Your task to perform on an android device: What's the news this evening? Image 0: 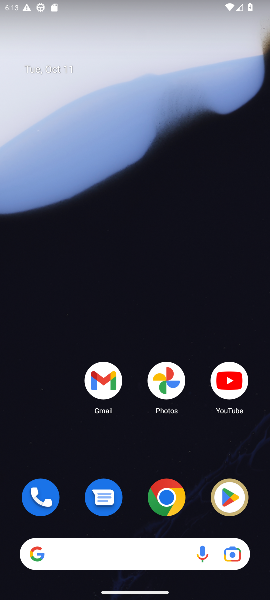
Step 0: drag from (158, 588) to (144, 256)
Your task to perform on an android device: What's the news this evening? Image 1: 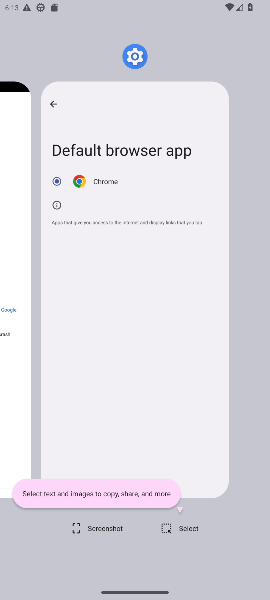
Step 1: click (236, 109)
Your task to perform on an android device: What's the news this evening? Image 2: 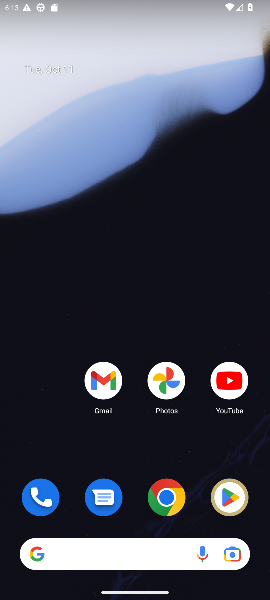
Step 2: click (113, 578)
Your task to perform on an android device: What's the news this evening? Image 3: 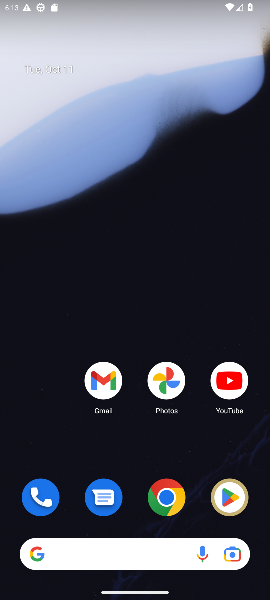
Step 3: click (117, 593)
Your task to perform on an android device: What's the news this evening? Image 4: 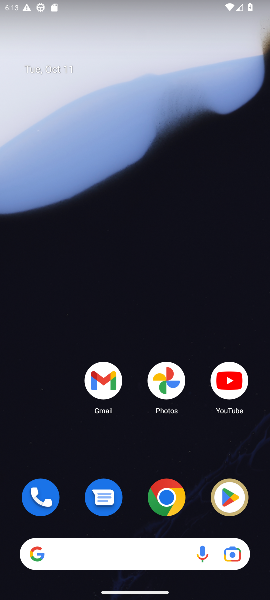
Step 4: drag from (117, 593) to (123, 162)
Your task to perform on an android device: What's the news this evening? Image 5: 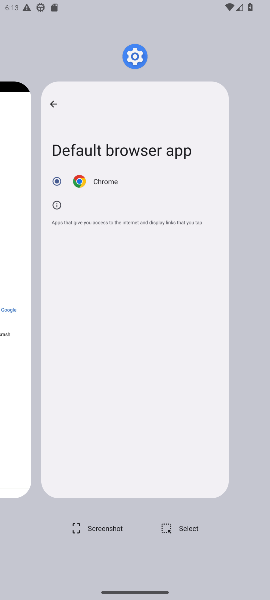
Step 5: click (250, 87)
Your task to perform on an android device: What's the news this evening? Image 6: 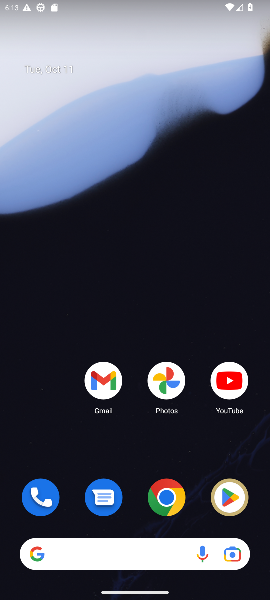
Step 6: click (92, 553)
Your task to perform on an android device: What's the news this evening? Image 7: 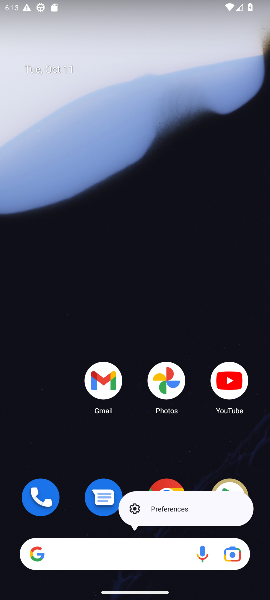
Step 7: click (92, 553)
Your task to perform on an android device: What's the news this evening? Image 8: 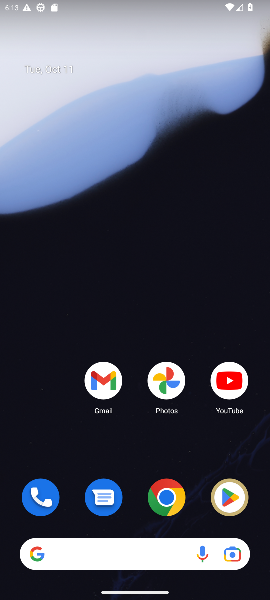
Step 8: click (92, 553)
Your task to perform on an android device: What's the news this evening? Image 9: 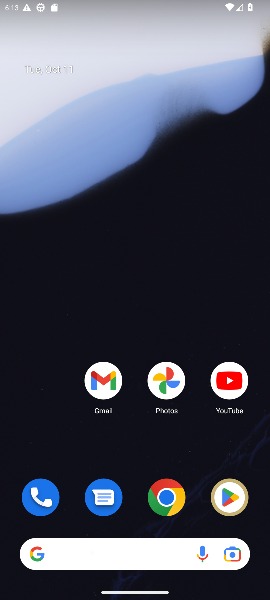
Step 9: click (92, 553)
Your task to perform on an android device: What's the news this evening? Image 10: 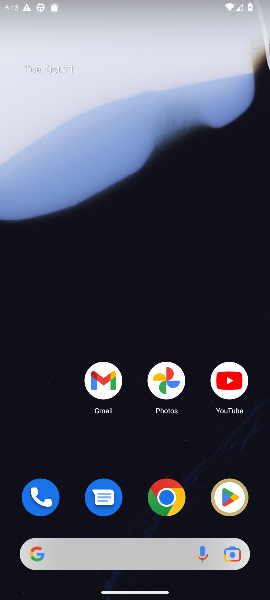
Step 10: click (92, 553)
Your task to perform on an android device: What's the news this evening? Image 11: 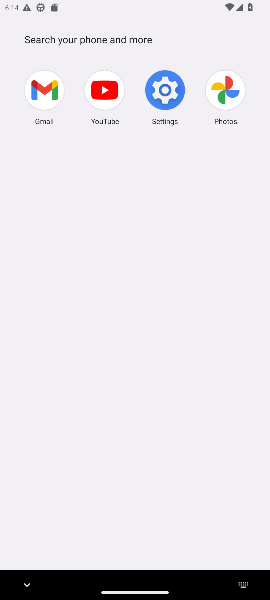
Step 11: type "the news this evening"
Your task to perform on an android device: What's the news this evening? Image 12: 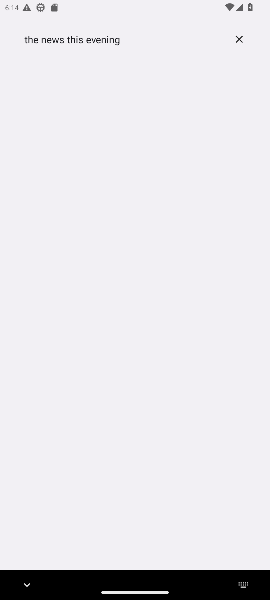
Step 12: press enter
Your task to perform on an android device: What's the news this evening? Image 13: 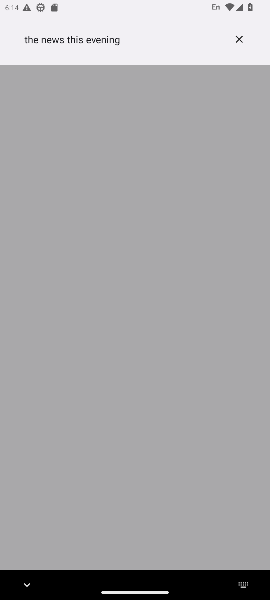
Step 13: click (83, 43)
Your task to perform on an android device: What's the news this evening? Image 14: 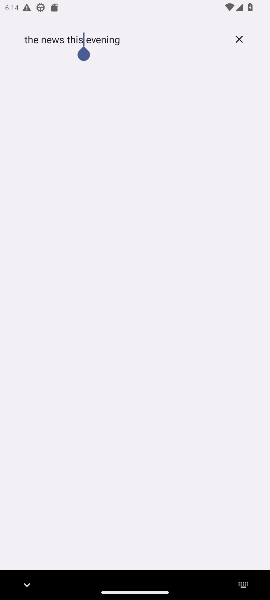
Step 14: click (83, 43)
Your task to perform on an android device: What's the news this evening? Image 15: 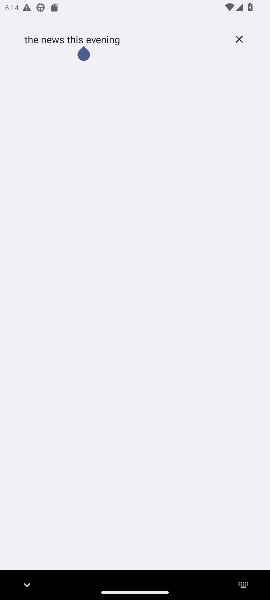
Step 15: click (83, 43)
Your task to perform on an android device: What's the news this evening? Image 16: 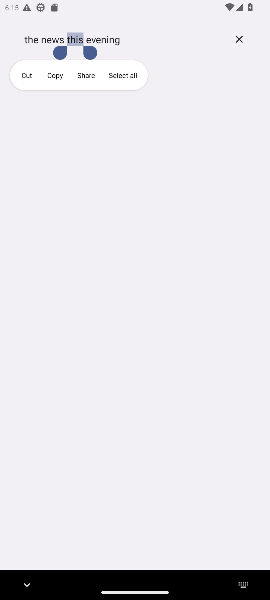
Step 16: click (143, 40)
Your task to perform on an android device: What's the news this evening? Image 17: 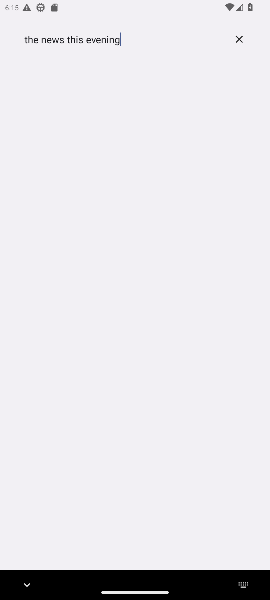
Step 17: click (140, 34)
Your task to perform on an android device: What's the news this evening? Image 18: 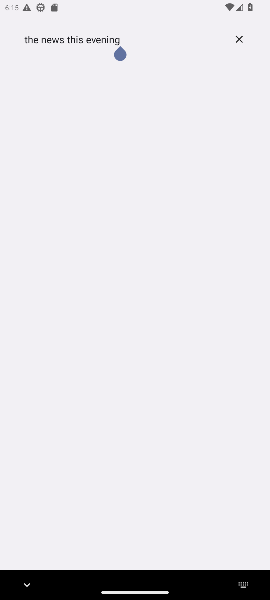
Step 18: press enter
Your task to perform on an android device: What's the news this evening? Image 19: 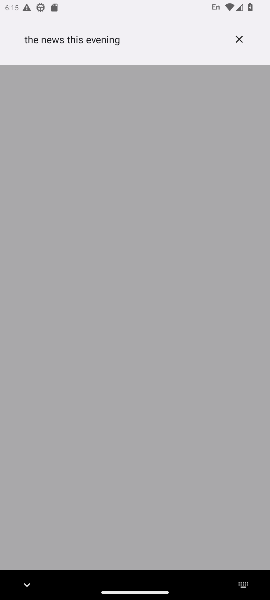
Step 19: click (28, 586)
Your task to perform on an android device: What's the news this evening? Image 20: 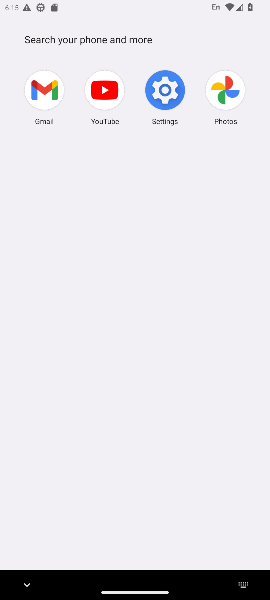
Step 20: click (28, 586)
Your task to perform on an android device: What's the news this evening? Image 21: 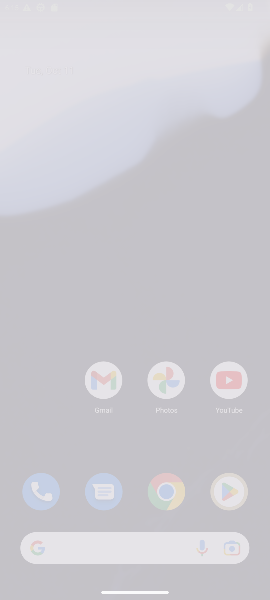
Step 21: click (28, 586)
Your task to perform on an android device: What's the news this evening? Image 22: 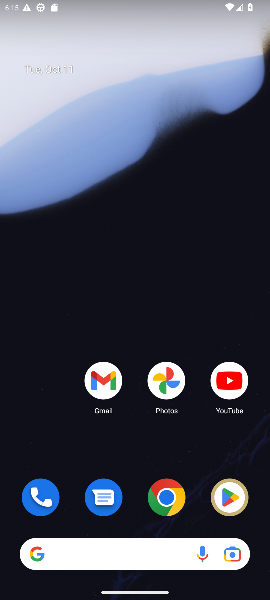
Step 22: task complete